Your task to perform on an android device: turn off priority inbox in the gmail app Image 0: 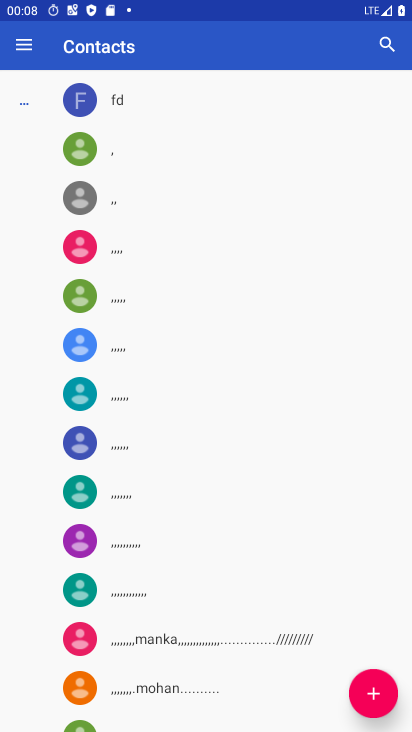
Step 0: press home button
Your task to perform on an android device: turn off priority inbox in the gmail app Image 1: 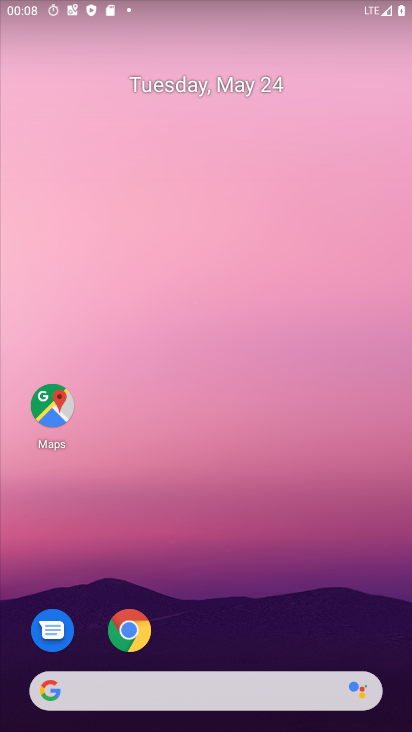
Step 1: drag from (250, 637) to (294, 0)
Your task to perform on an android device: turn off priority inbox in the gmail app Image 2: 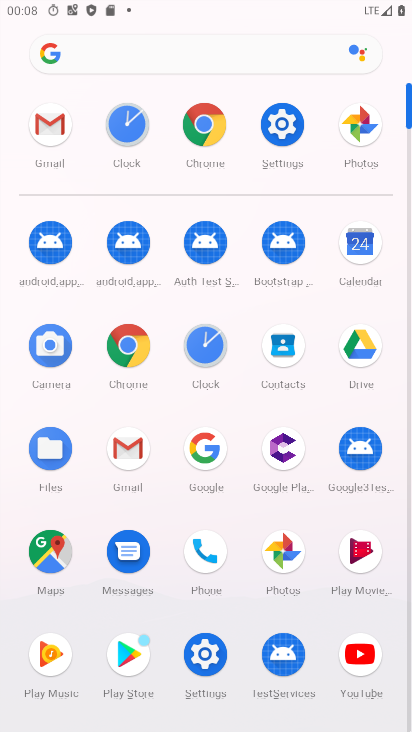
Step 2: click (43, 126)
Your task to perform on an android device: turn off priority inbox in the gmail app Image 3: 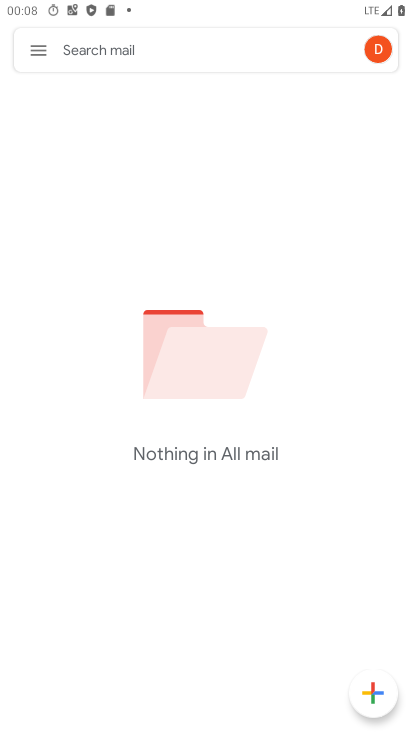
Step 3: click (38, 51)
Your task to perform on an android device: turn off priority inbox in the gmail app Image 4: 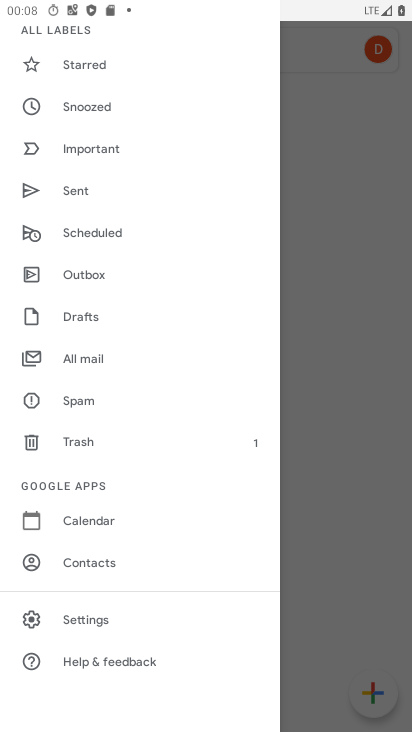
Step 4: click (76, 624)
Your task to perform on an android device: turn off priority inbox in the gmail app Image 5: 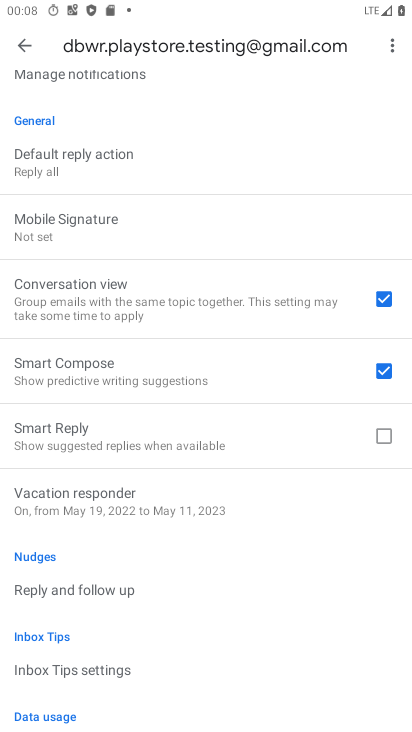
Step 5: drag from (83, 256) to (107, 577)
Your task to perform on an android device: turn off priority inbox in the gmail app Image 6: 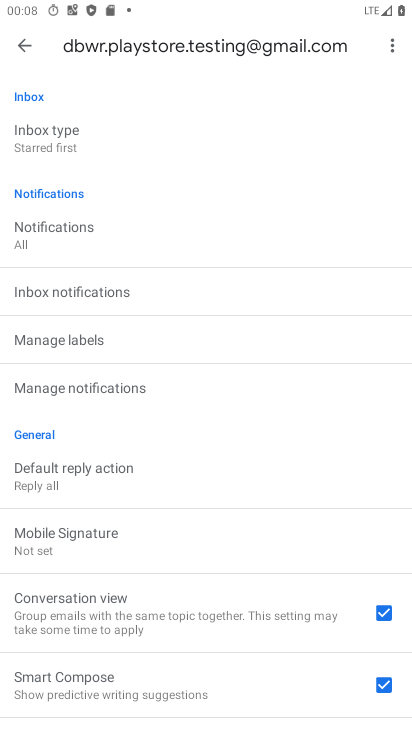
Step 6: drag from (129, 231) to (170, 466)
Your task to perform on an android device: turn off priority inbox in the gmail app Image 7: 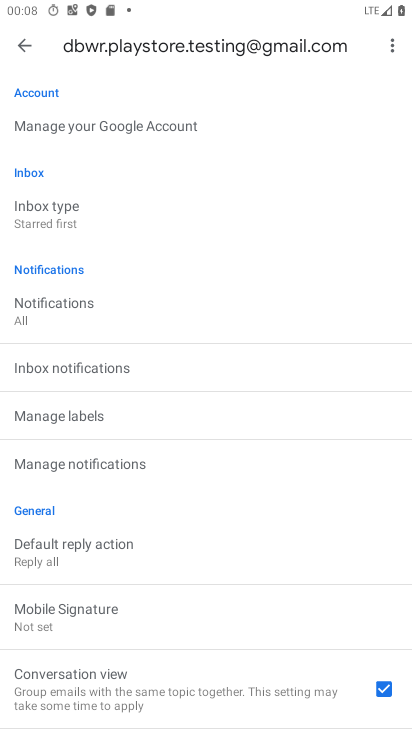
Step 7: click (37, 227)
Your task to perform on an android device: turn off priority inbox in the gmail app Image 8: 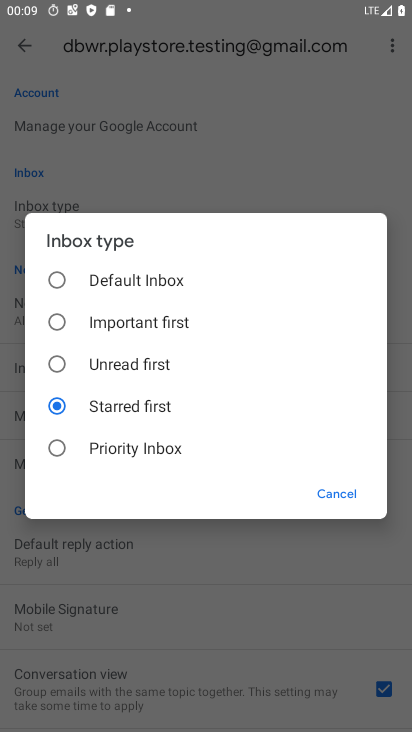
Step 8: task complete